Your task to perform on an android device: Go to display settings Image 0: 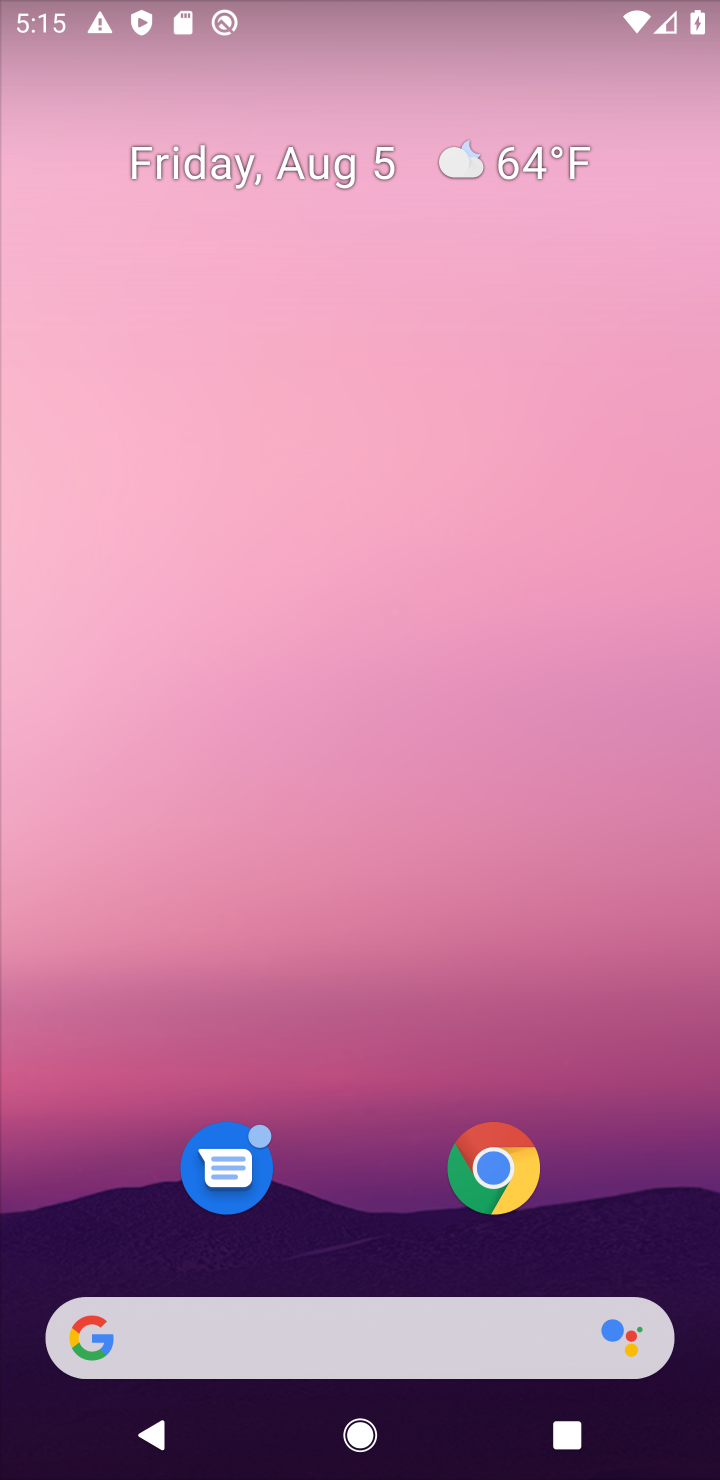
Step 0: drag from (383, 1101) to (166, 29)
Your task to perform on an android device: Go to display settings Image 1: 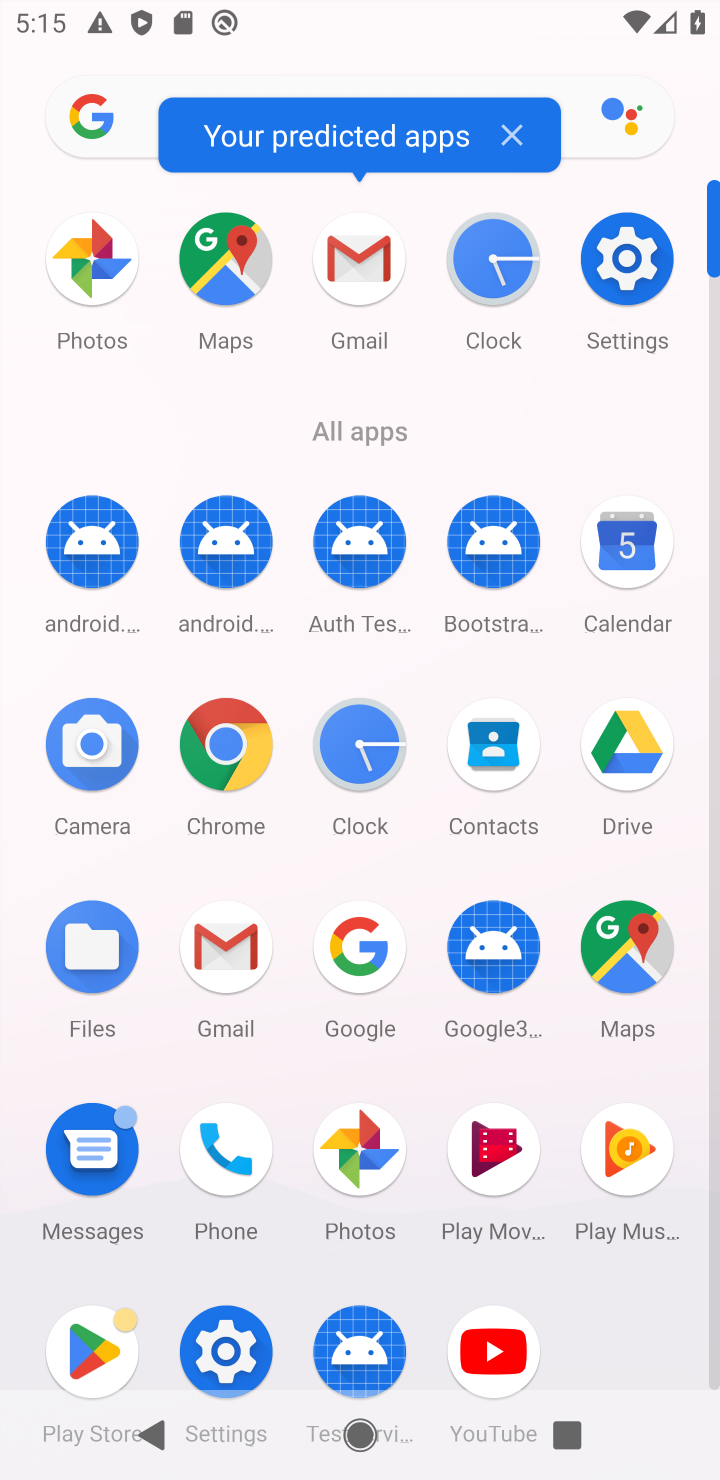
Step 1: click (634, 258)
Your task to perform on an android device: Go to display settings Image 2: 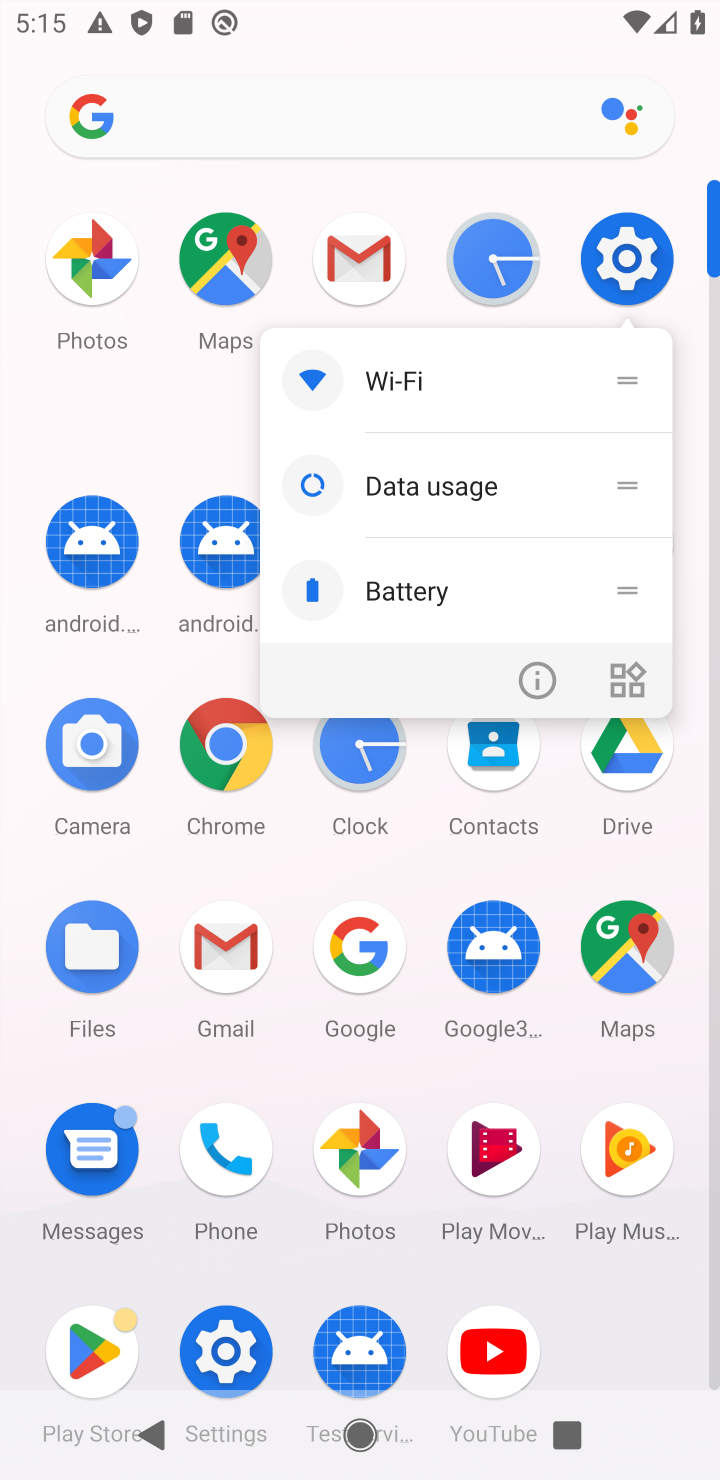
Step 2: click (634, 258)
Your task to perform on an android device: Go to display settings Image 3: 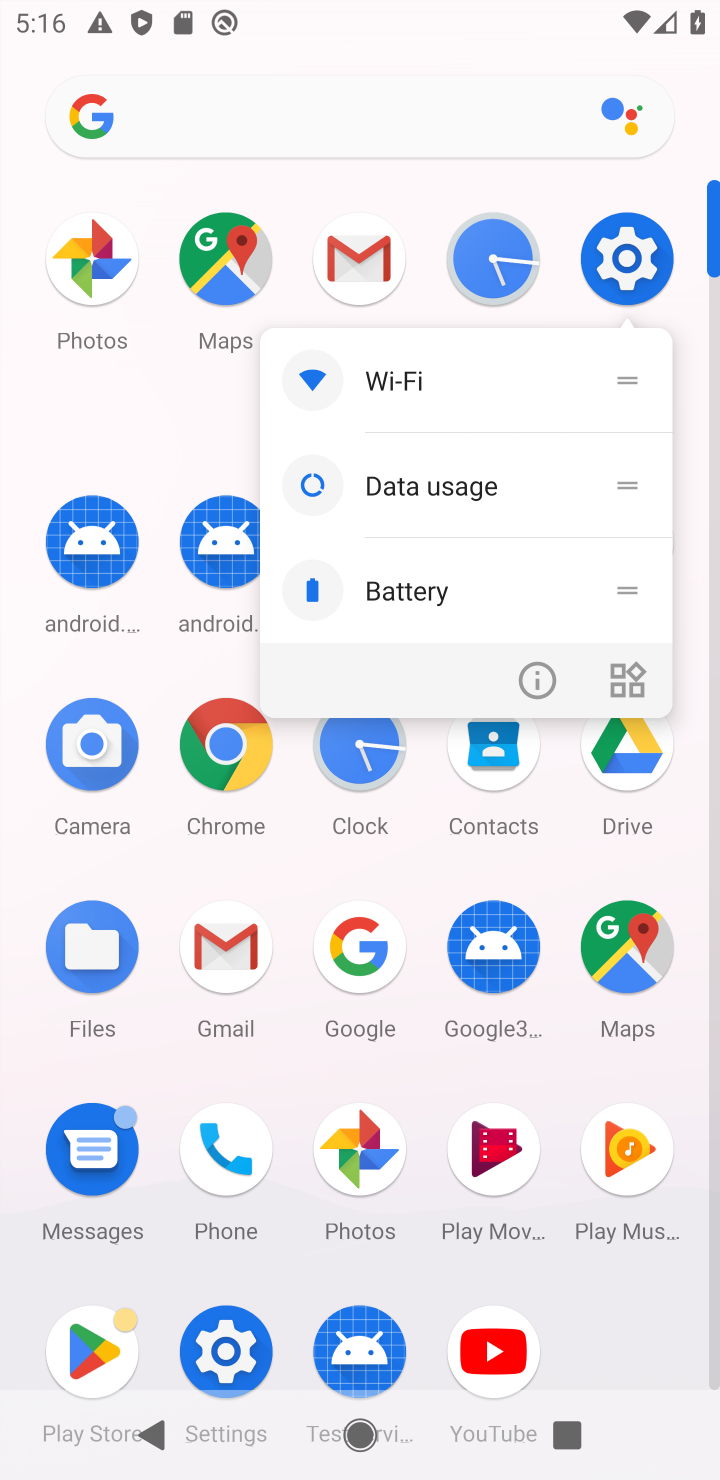
Step 3: click (634, 258)
Your task to perform on an android device: Go to display settings Image 4: 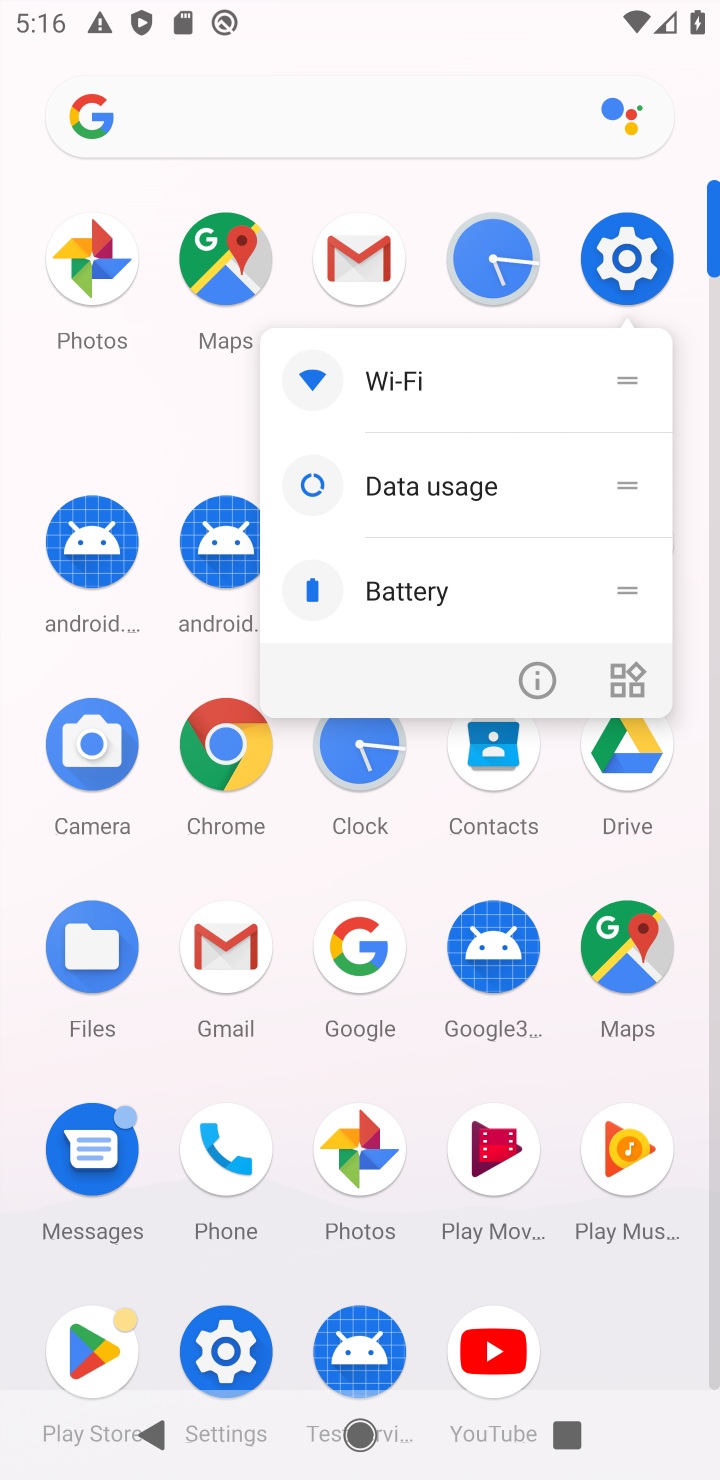
Step 4: click (637, 284)
Your task to perform on an android device: Go to display settings Image 5: 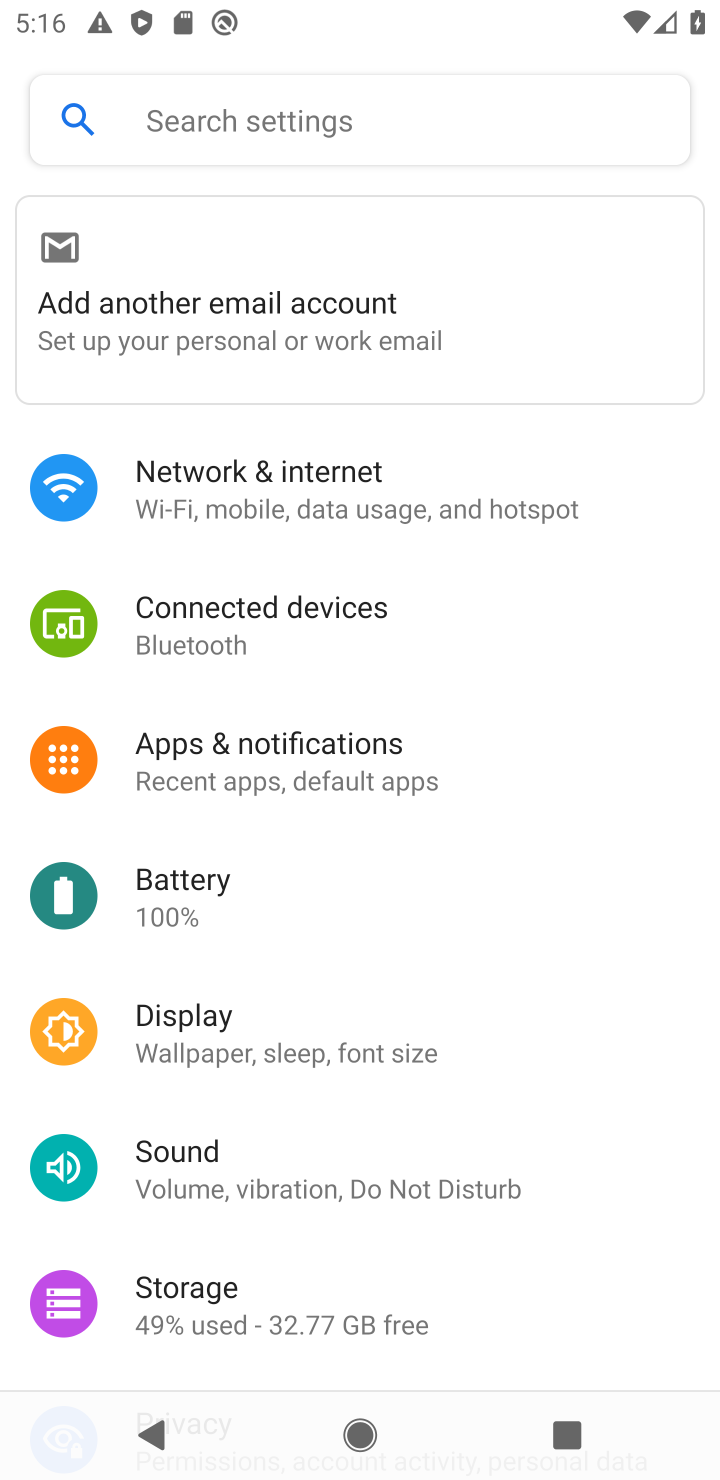
Step 5: click (202, 1039)
Your task to perform on an android device: Go to display settings Image 6: 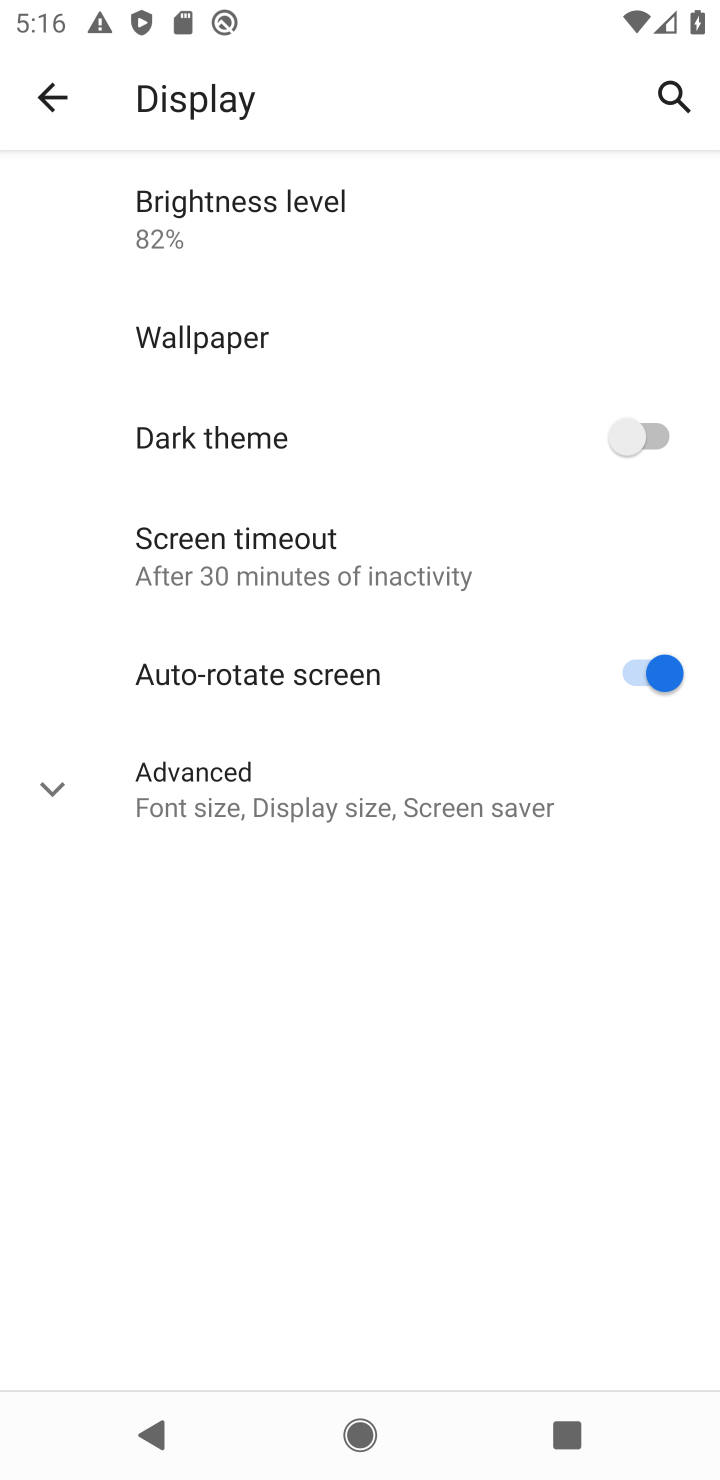
Step 6: task complete